Your task to perform on an android device: Open eBay Image 0: 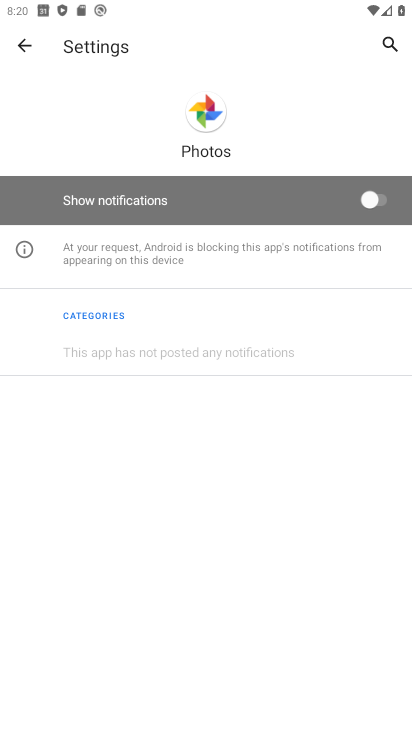
Step 0: press home button
Your task to perform on an android device: Open eBay Image 1: 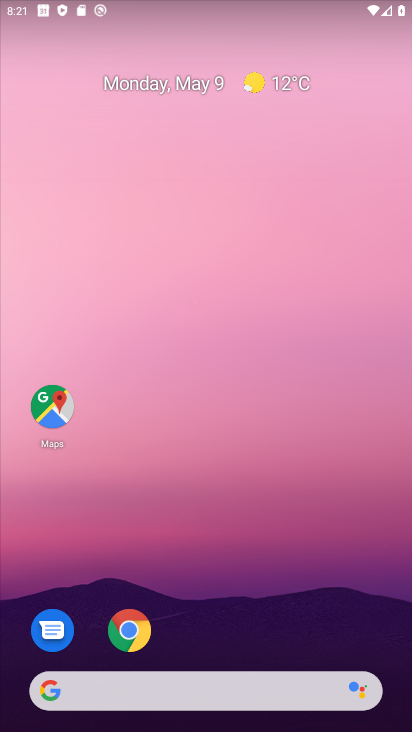
Step 1: click (122, 635)
Your task to perform on an android device: Open eBay Image 2: 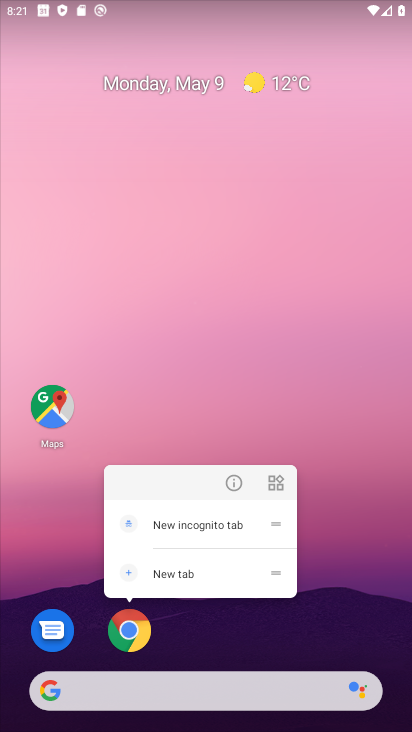
Step 2: click (125, 627)
Your task to perform on an android device: Open eBay Image 3: 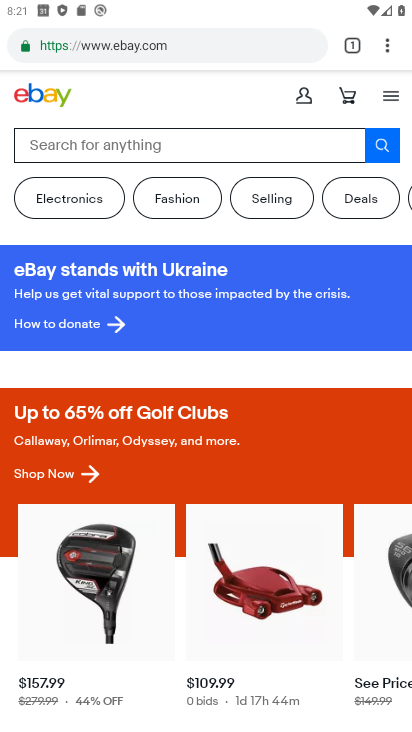
Step 3: task complete